Your task to perform on an android device: Open Chrome and go to settings Image 0: 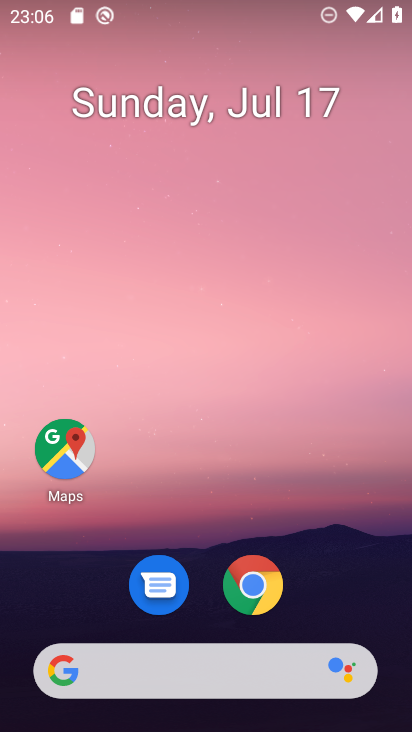
Step 0: press home button
Your task to perform on an android device: Open Chrome and go to settings Image 1: 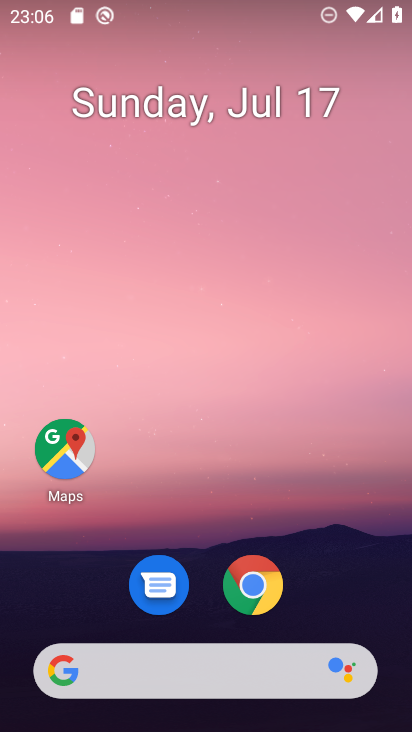
Step 1: click (250, 589)
Your task to perform on an android device: Open Chrome and go to settings Image 2: 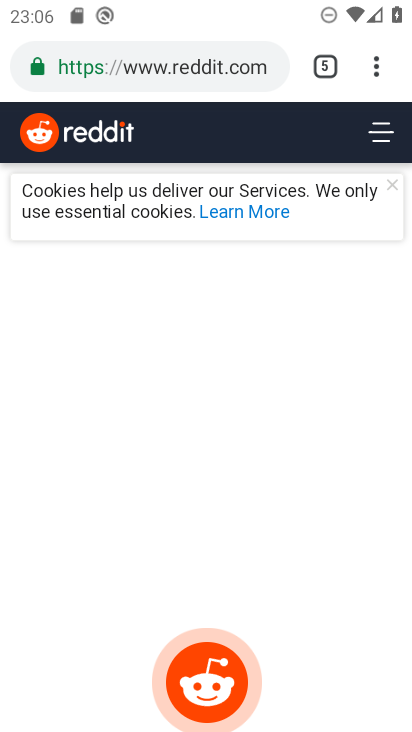
Step 2: task complete